Your task to perform on an android device: change alarm snooze length Image 0: 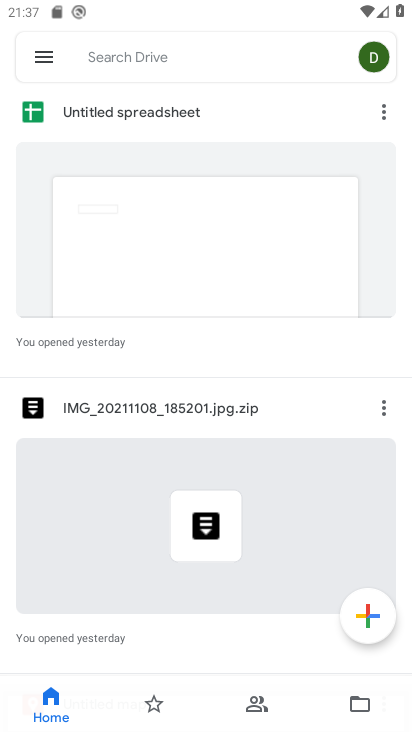
Step 0: press home button
Your task to perform on an android device: change alarm snooze length Image 1: 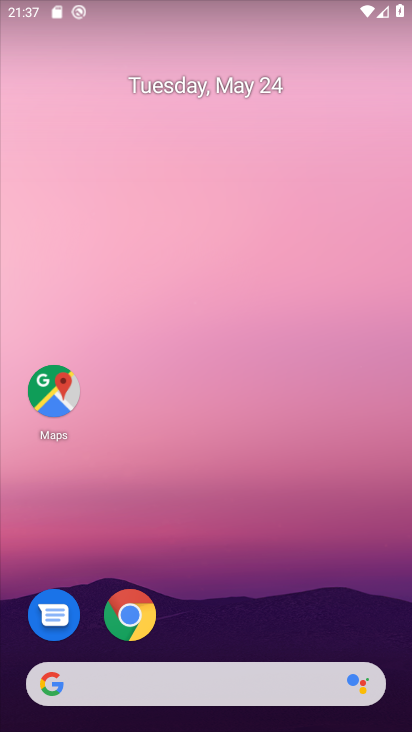
Step 1: drag from (229, 603) to (224, 239)
Your task to perform on an android device: change alarm snooze length Image 2: 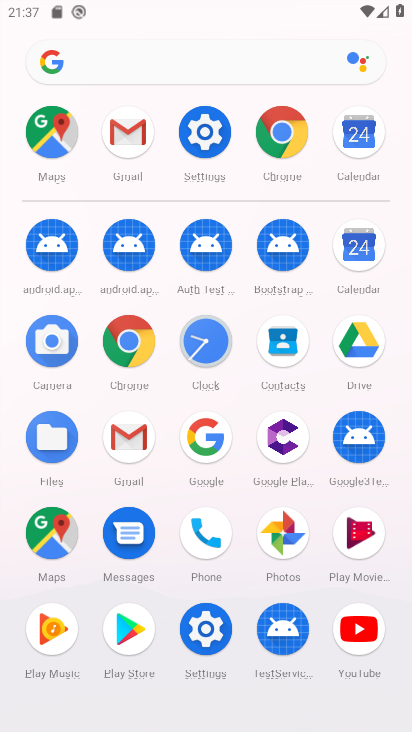
Step 2: click (209, 338)
Your task to perform on an android device: change alarm snooze length Image 3: 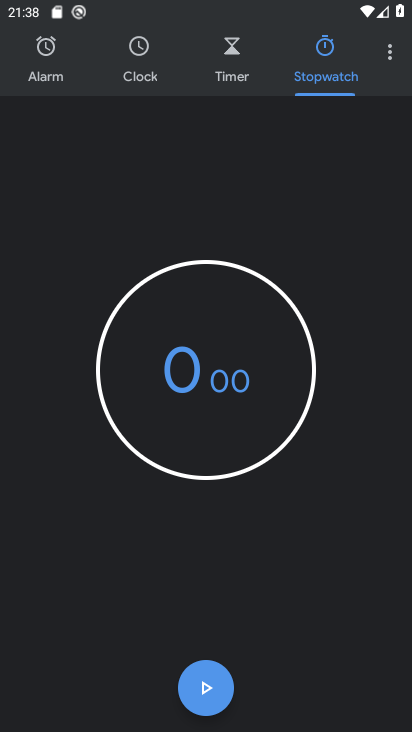
Step 3: click (380, 54)
Your task to perform on an android device: change alarm snooze length Image 4: 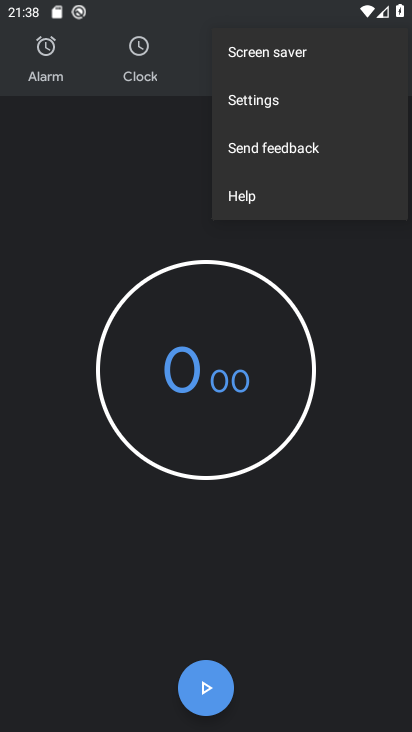
Step 4: click (275, 99)
Your task to perform on an android device: change alarm snooze length Image 5: 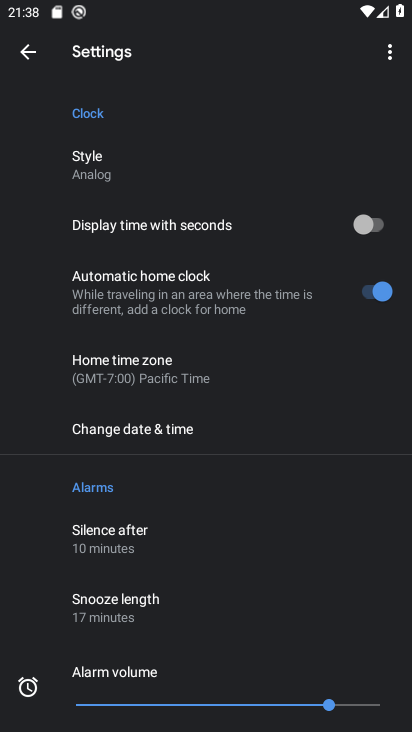
Step 5: click (112, 618)
Your task to perform on an android device: change alarm snooze length Image 6: 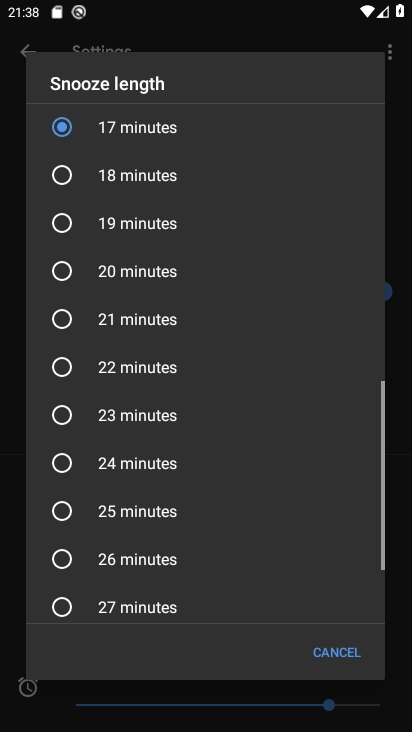
Step 6: click (154, 478)
Your task to perform on an android device: change alarm snooze length Image 7: 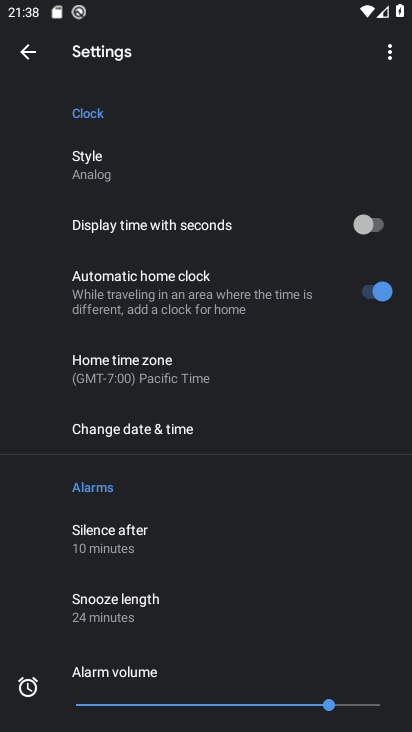
Step 7: task complete